Your task to perform on an android device: find snoozed emails in the gmail app Image 0: 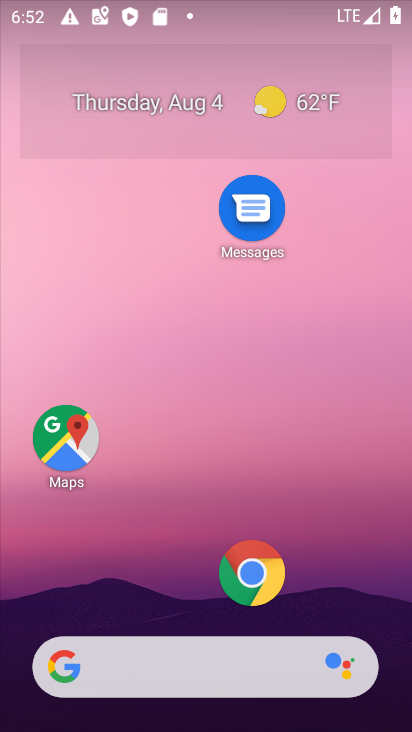
Step 0: press home button
Your task to perform on an android device: find snoozed emails in the gmail app Image 1: 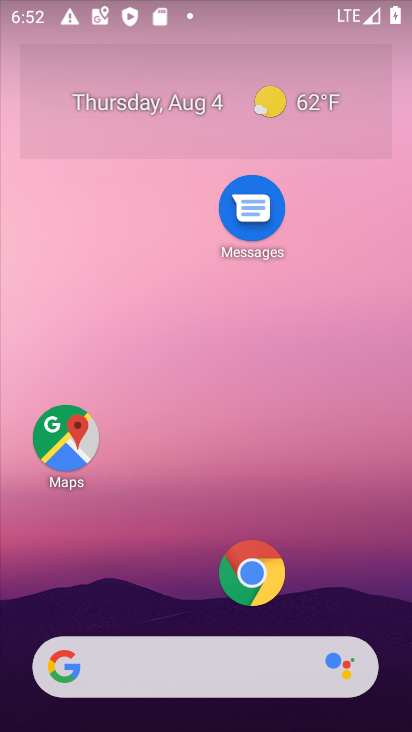
Step 1: drag from (178, 538) to (211, 113)
Your task to perform on an android device: find snoozed emails in the gmail app Image 2: 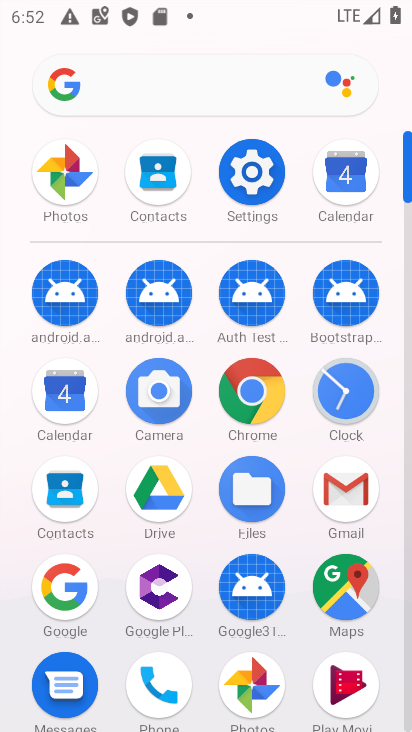
Step 2: click (353, 487)
Your task to perform on an android device: find snoozed emails in the gmail app Image 3: 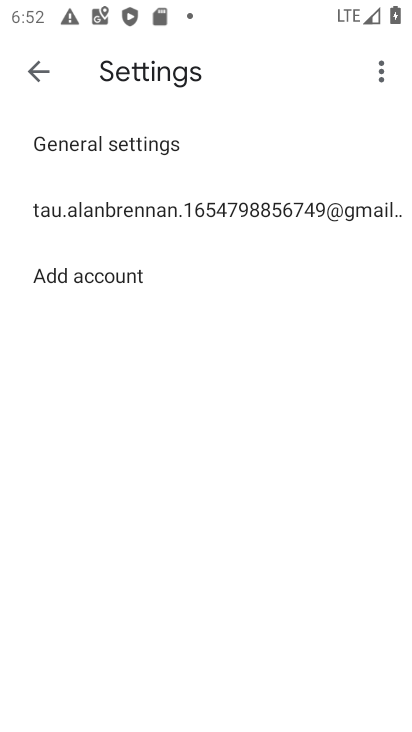
Step 3: click (36, 60)
Your task to perform on an android device: find snoozed emails in the gmail app Image 4: 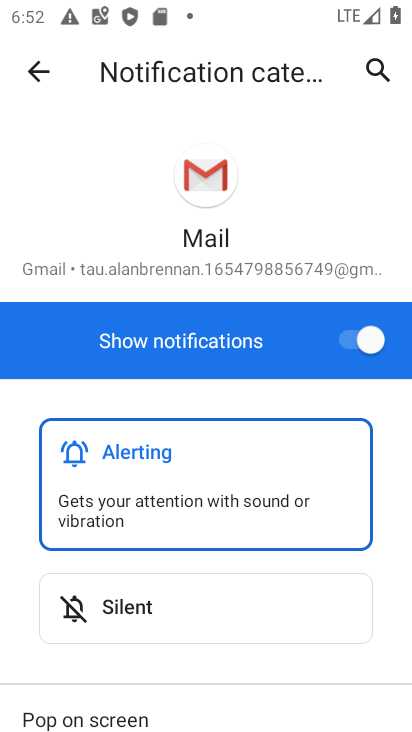
Step 4: click (42, 69)
Your task to perform on an android device: find snoozed emails in the gmail app Image 5: 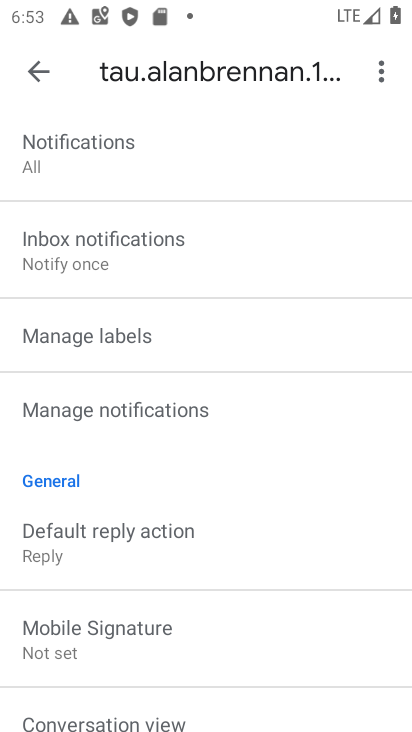
Step 5: click (42, 69)
Your task to perform on an android device: find snoozed emails in the gmail app Image 6: 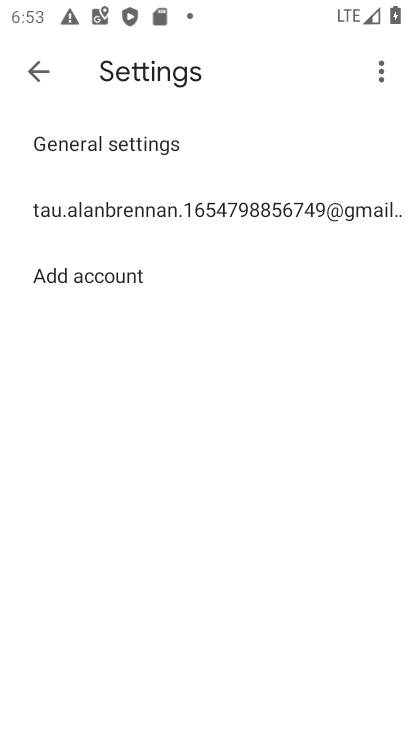
Step 6: click (43, 70)
Your task to perform on an android device: find snoozed emails in the gmail app Image 7: 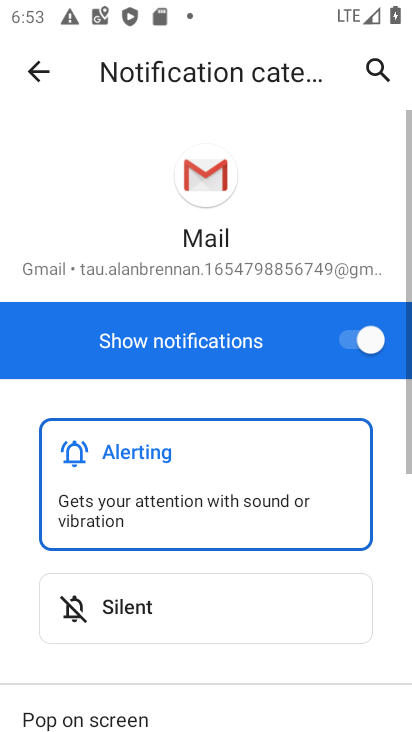
Step 7: click (43, 70)
Your task to perform on an android device: find snoozed emails in the gmail app Image 8: 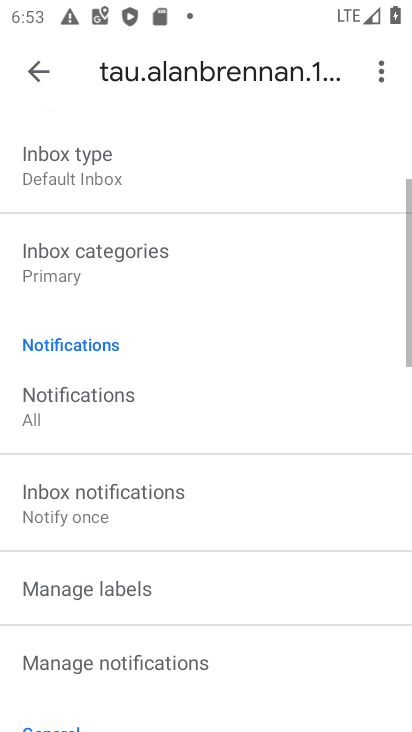
Step 8: click (43, 70)
Your task to perform on an android device: find snoozed emails in the gmail app Image 9: 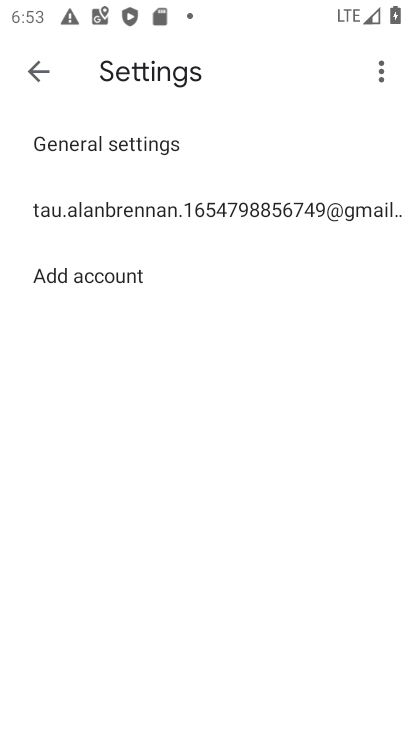
Step 9: click (43, 70)
Your task to perform on an android device: find snoozed emails in the gmail app Image 10: 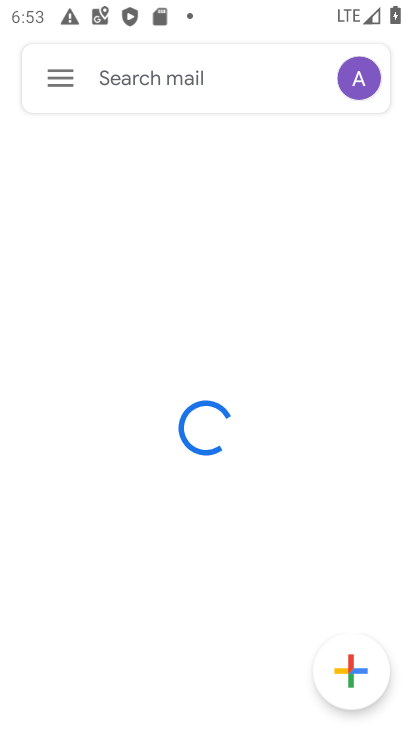
Step 10: click (43, 70)
Your task to perform on an android device: find snoozed emails in the gmail app Image 11: 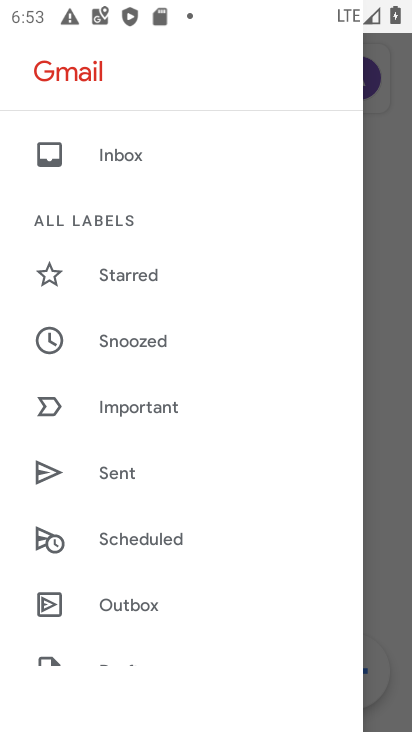
Step 11: click (140, 347)
Your task to perform on an android device: find snoozed emails in the gmail app Image 12: 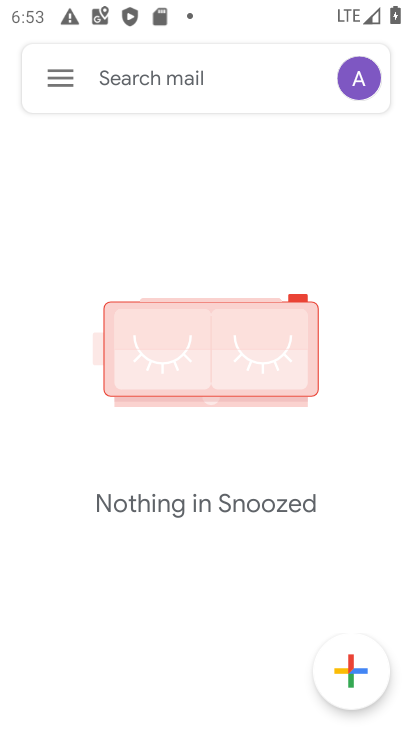
Step 12: task complete